Your task to perform on an android device: Open privacy settings Image 0: 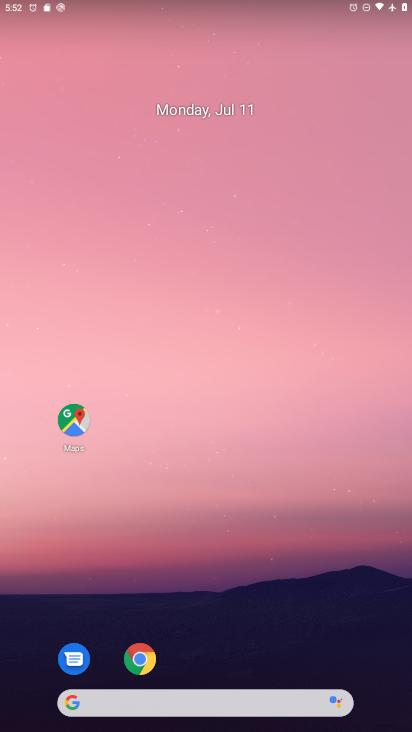
Step 0: drag from (325, 650) to (326, 37)
Your task to perform on an android device: Open privacy settings Image 1: 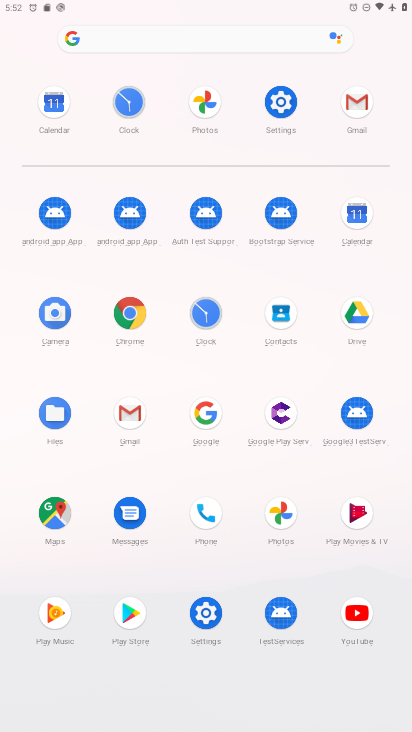
Step 1: click (204, 614)
Your task to perform on an android device: Open privacy settings Image 2: 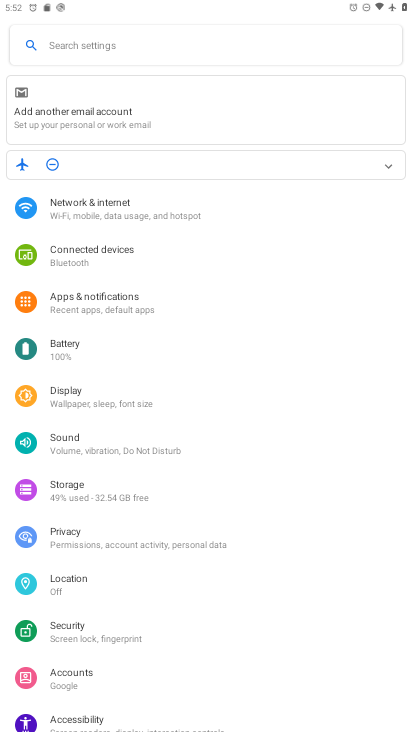
Step 2: click (64, 544)
Your task to perform on an android device: Open privacy settings Image 3: 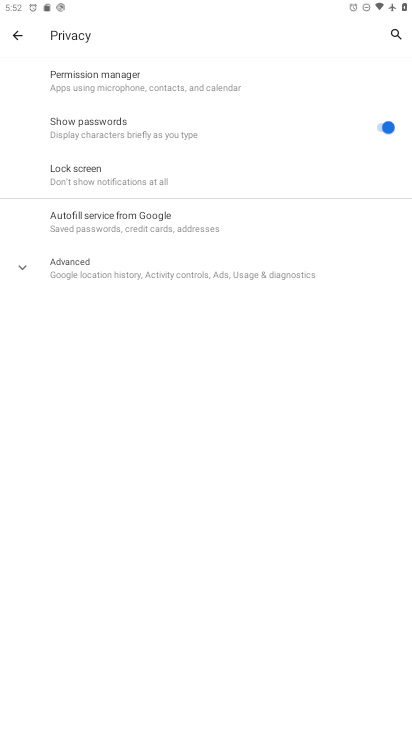
Step 3: click (22, 264)
Your task to perform on an android device: Open privacy settings Image 4: 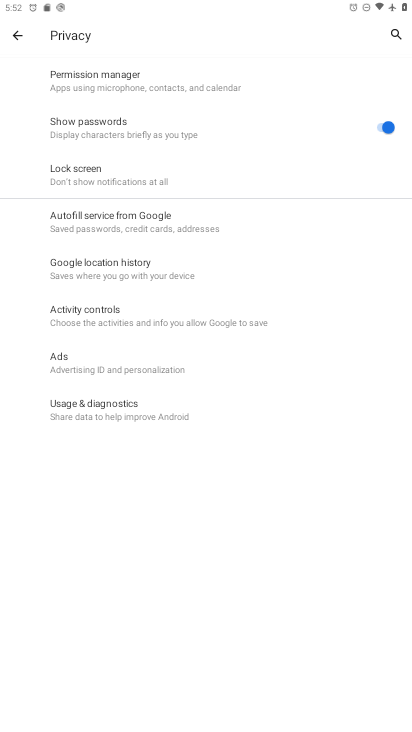
Step 4: task complete